Your task to perform on an android device: Go to settings Image 0: 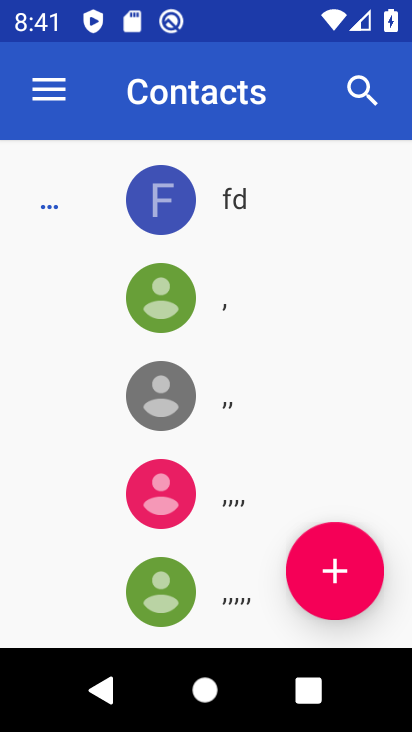
Step 0: press home button
Your task to perform on an android device: Go to settings Image 1: 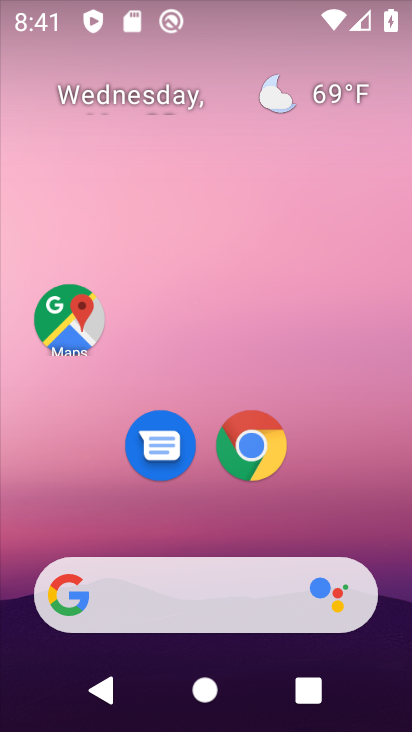
Step 1: drag from (247, 534) to (269, 38)
Your task to perform on an android device: Go to settings Image 2: 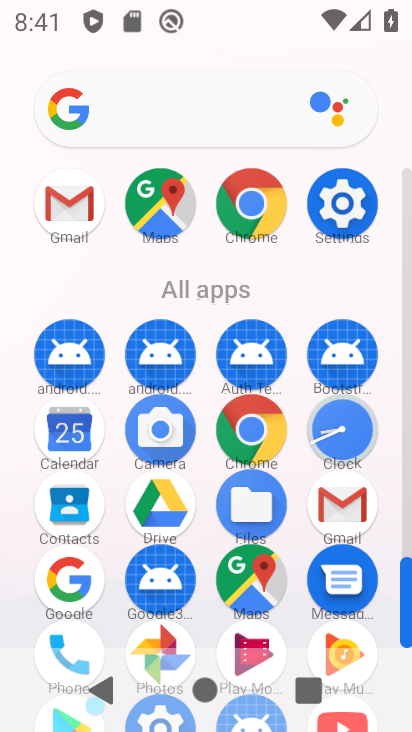
Step 2: click (342, 190)
Your task to perform on an android device: Go to settings Image 3: 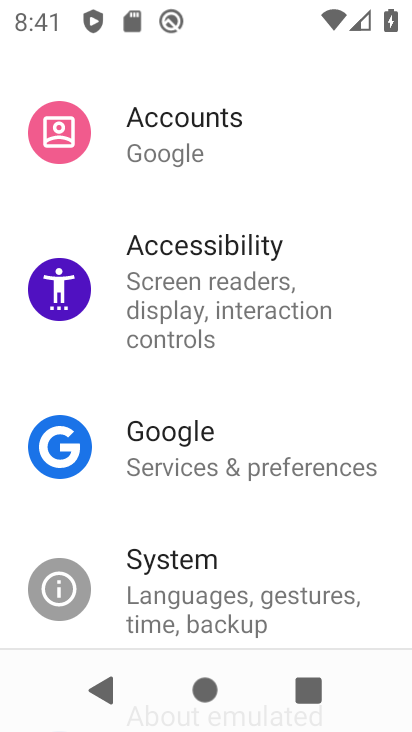
Step 3: task complete